Your task to perform on an android device: toggle airplane mode Image 0: 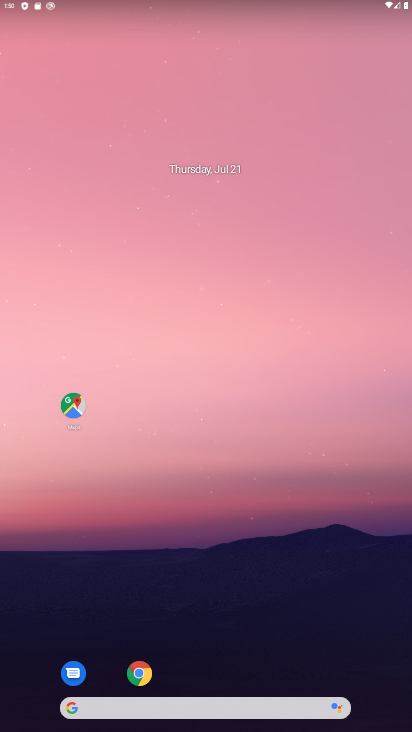
Step 0: drag from (190, 472) to (139, 71)
Your task to perform on an android device: toggle airplane mode Image 1: 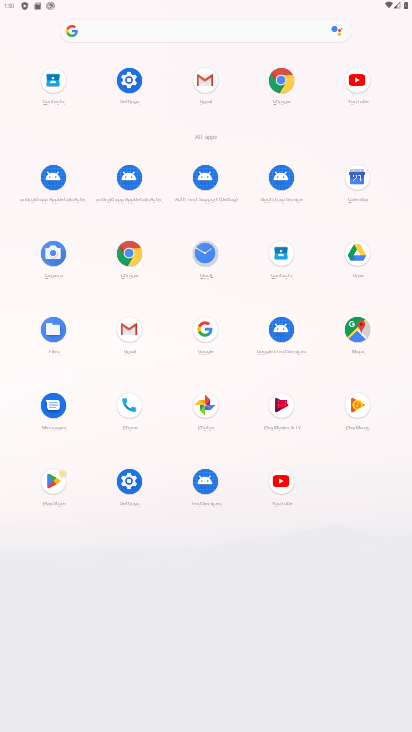
Step 1: click (134, 93)
Your task to perform on an android device: toggle airplane mode Image 2: 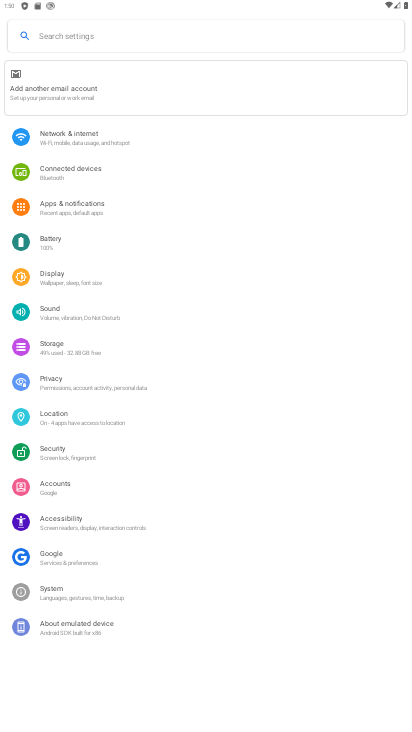
Step 2: click (97, 138)
Your task to perform on an android device: toggle airplane mode Image 3: 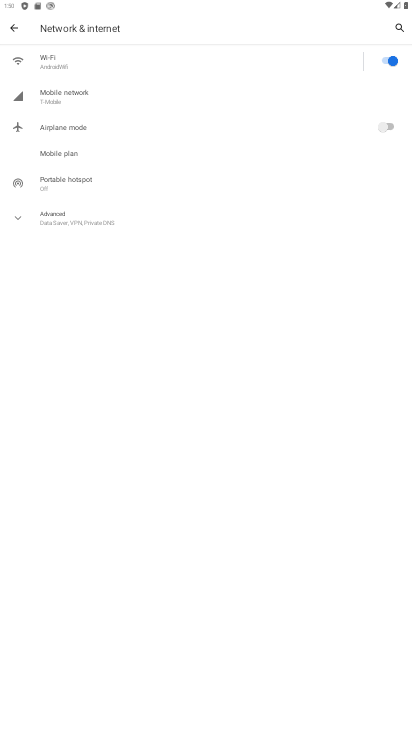
Step 3: click (395, 130)
Your task to perform on an android device: toggle airplane mode Image 4: 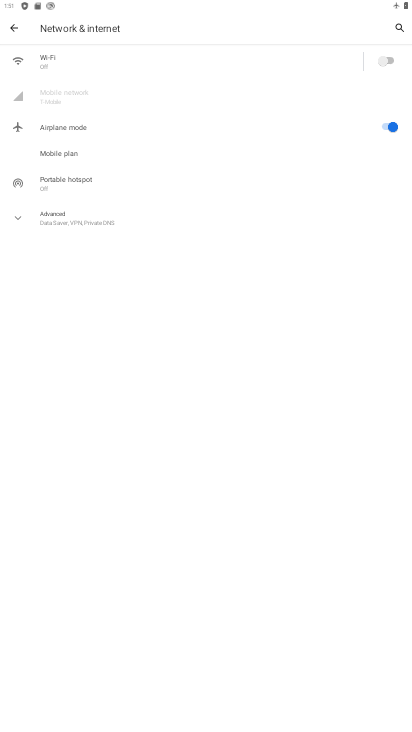
Step 4: task complete